Your task to perform on an android device: allow notifications from all sites in the chrome app Image 0: 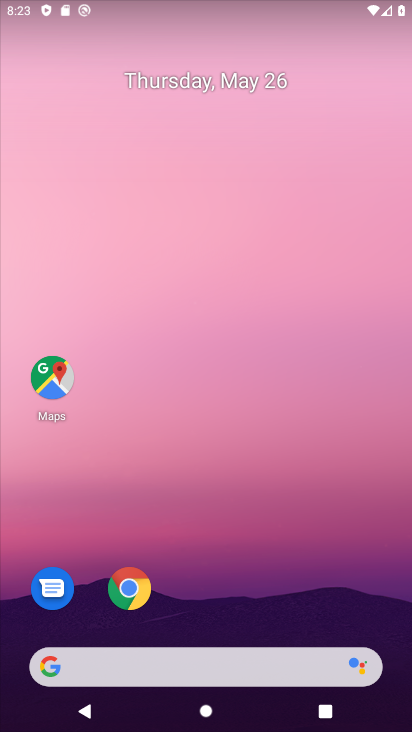
Step 0: click (322, 28)
Your task to perform on an android device: allow notifications from all sites in the chrome app Image 1: 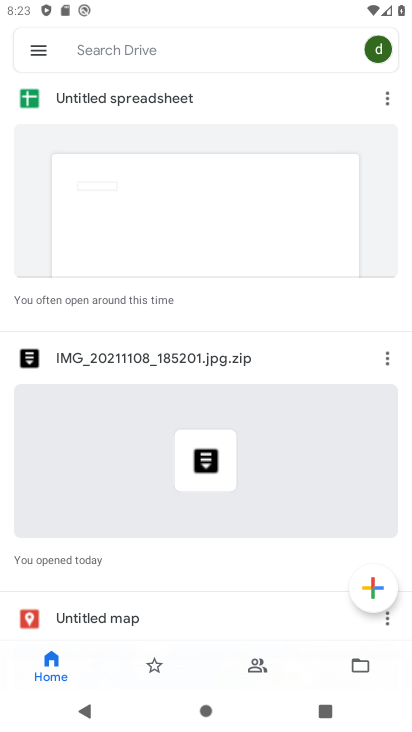
Step 1: press home button
Your task to perform on an android device: allow notifications from all sites in the chrome app Image 2: 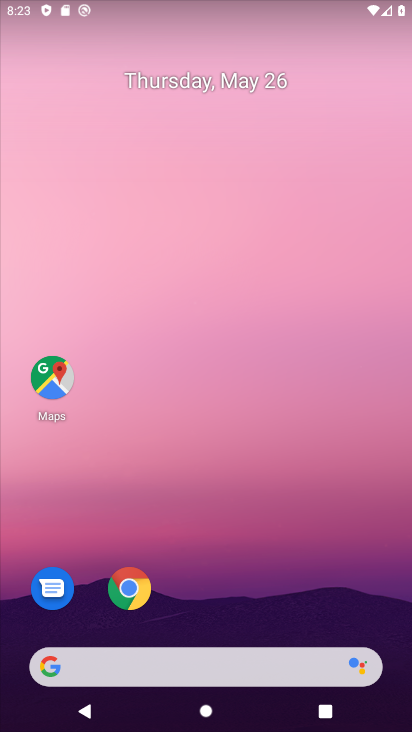
Step 2: click (125, 592)
Your task to perform on an android device: allow notifications from all sites in the chrome app Image 3: 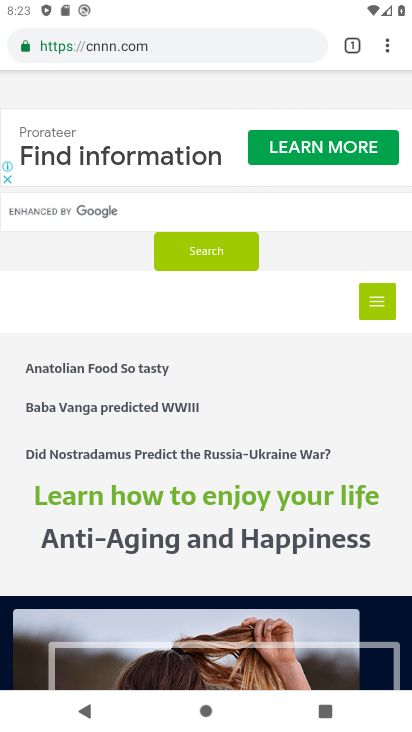
Step 3: click (385, 53)
Your task to perform on an android device: allow notifications from all sites in the chrome app Image 4: 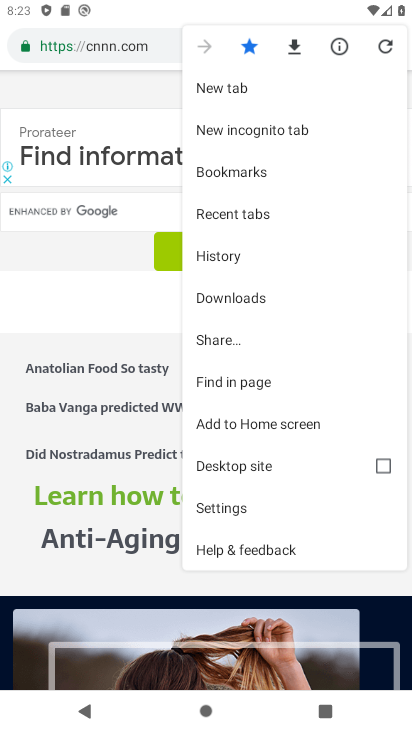
Step 4: click (241, 505)
Your task to perform on an android device: allow notifications from all sites in the chrome app Image 5: 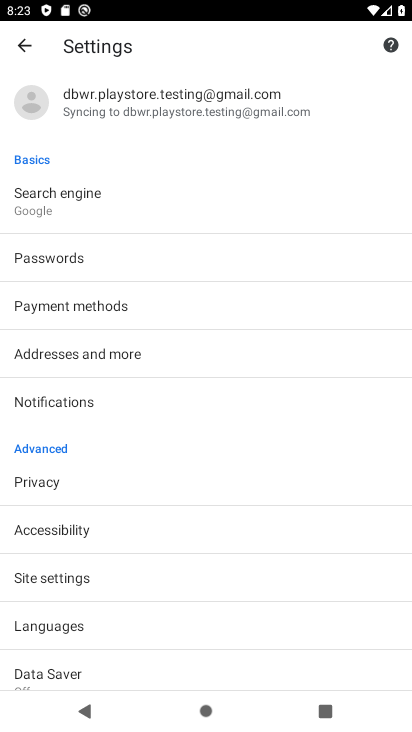
Step 5: click (34, 562)
Your task to perform on an android device: allow notifications from all sites in the chrome app Image 6: 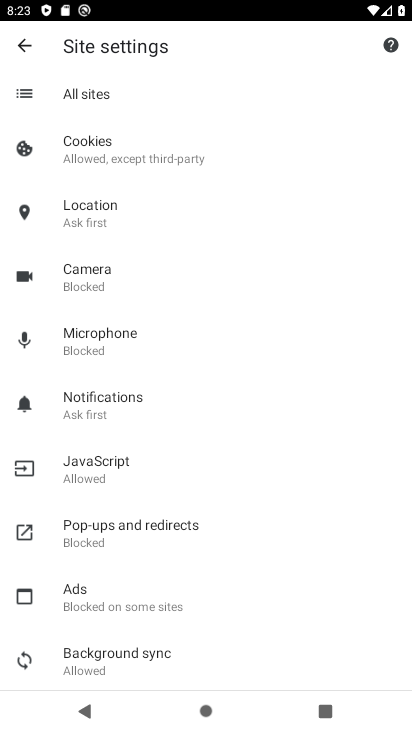
Step 6: click (79, 407)
Your task to perform on an android device: allow notifications from all sites in the chrome app Image 7: 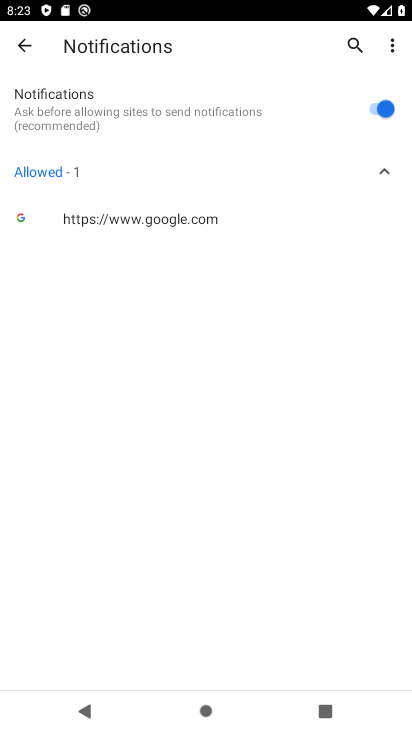
Step 7: task complete